Your task to perform on an android device: check google app version Image 0: 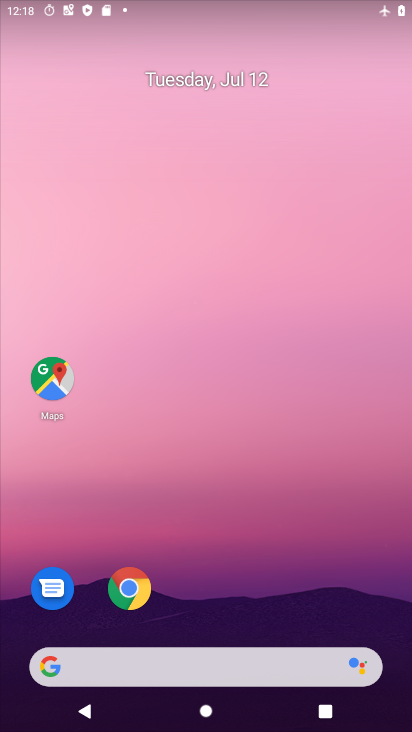
Step 0: drag from (319, 623) to (241, 56)
Your task to perform on an android device: check google app version Image 1: 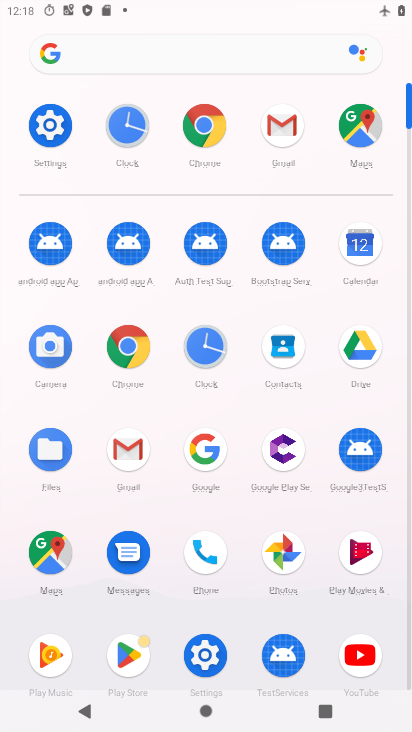
Step 1: click (214, 453)
Your task to perform on an android device: check google app version Image 2: 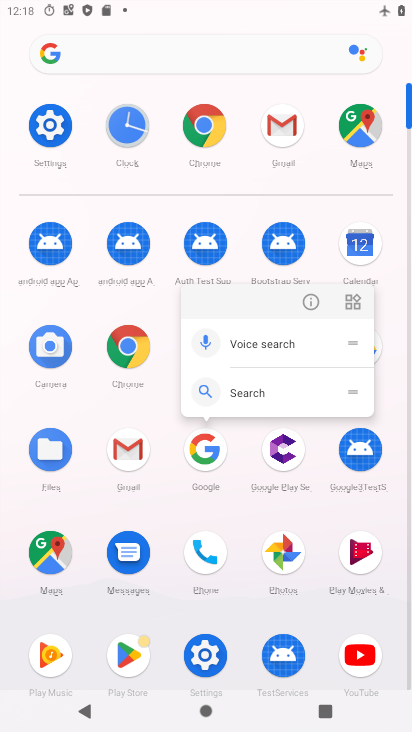
Step 2: click (312, 304)
Your task to perform on an android device: check google app version Image 3: 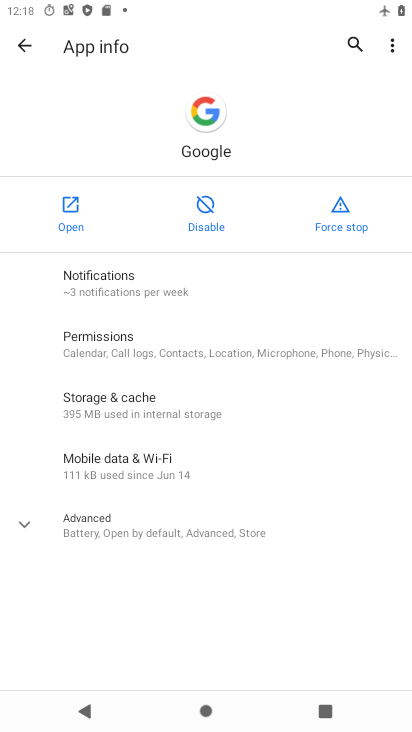
Step 3: click (165, 538)
Your task to perform on an android device: check google app version Image 4: 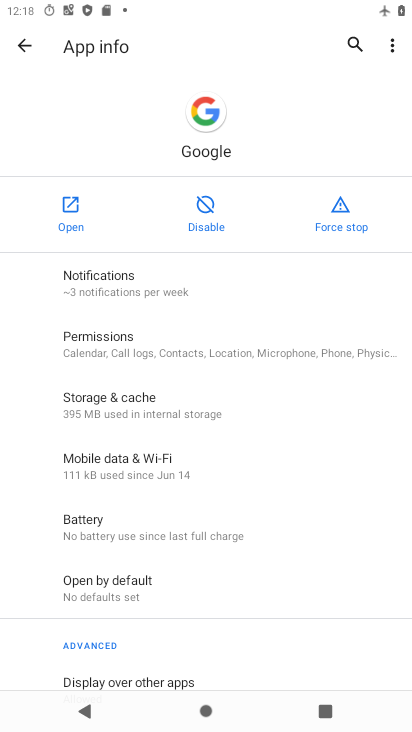
Step 4: task complete